Your task to perform on an android device: turn off notifications in google photos Image 0: 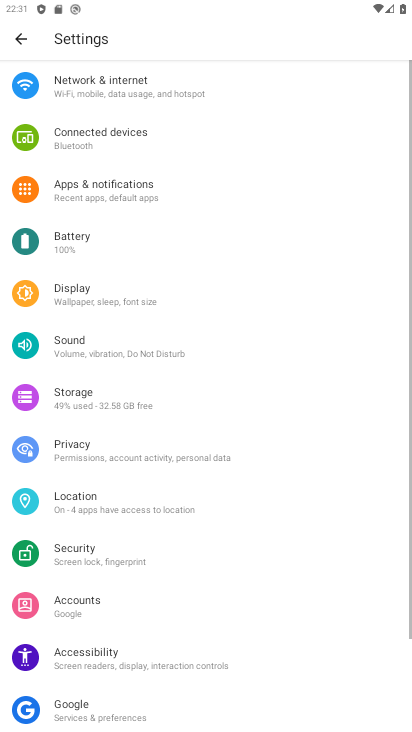
Step 0: press home button
Your task to perform on an android device: turn off notifications in google photos Image 1: 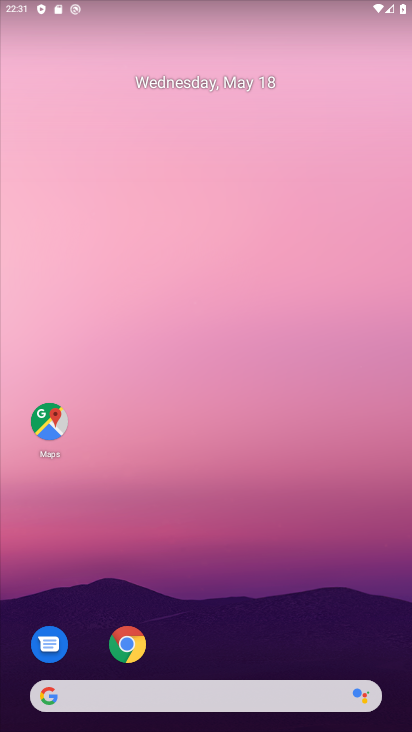
Step 1: drag from (247, 610) to (242, 206)
Your task to perform on an android device: turn off notifications in google photos Image 2: 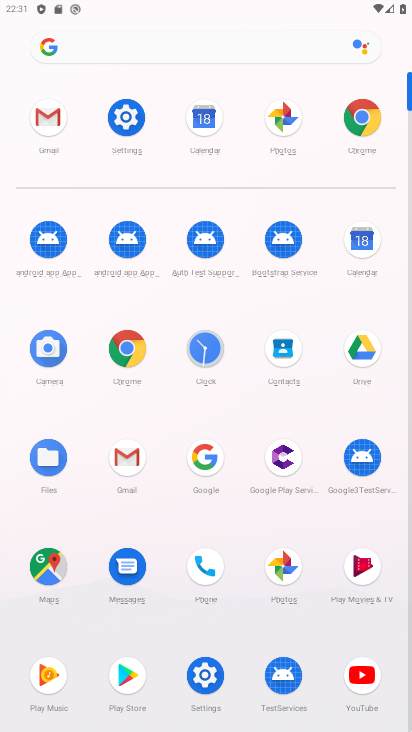
Step 2: click (288, 564)
Your task to perform on an android device: turn off notifications in google photos Image 3: 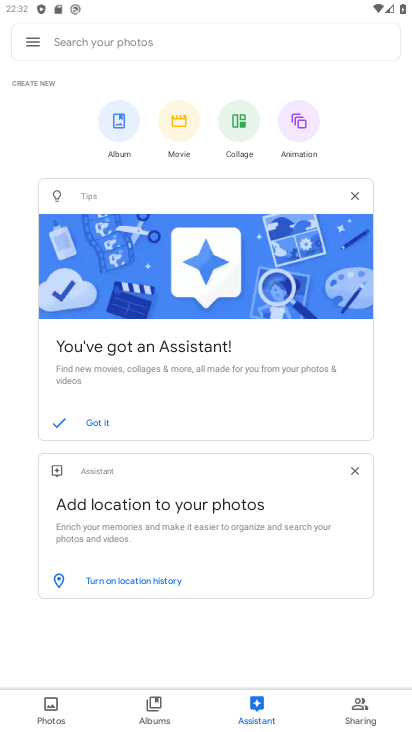
Step 3: click (30, 41)
Your task to perform on an android device: turn off notifications in google photos Image 4: 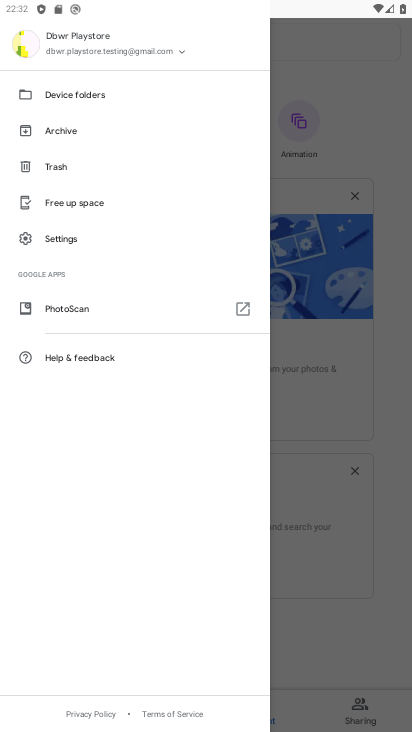
Step 4: click (93, 238)
Your task to perform on an android device: turn off notifications in google photos Image 5: 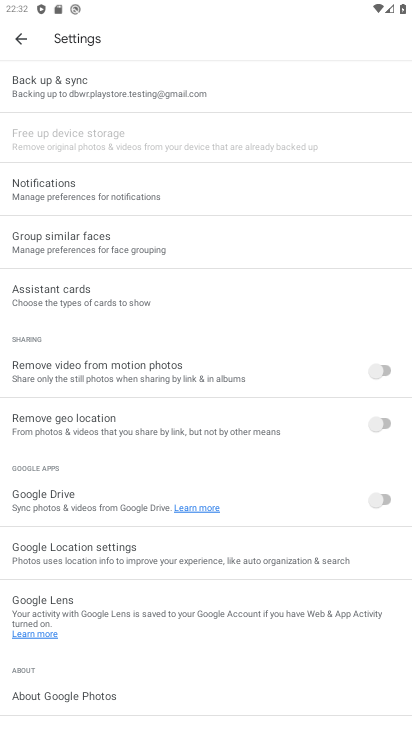
Step 5: click (69, 194)
Your task to perform on an android device: turn off notifications in google photos Image 6: 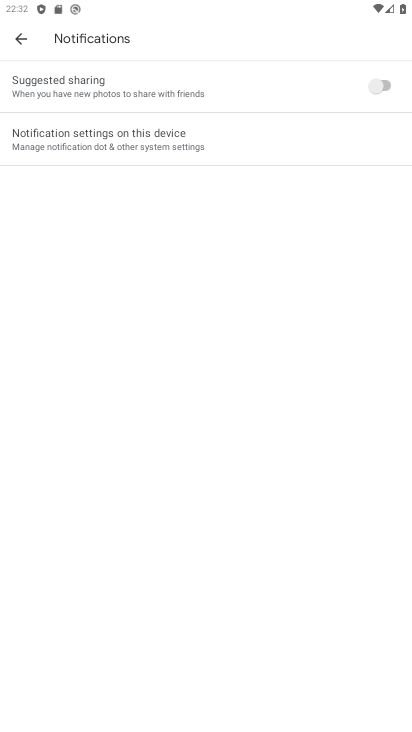
Step 6: click (96, 143)
Your task to perform on an android device: turn off notifications in google photos Image 7: 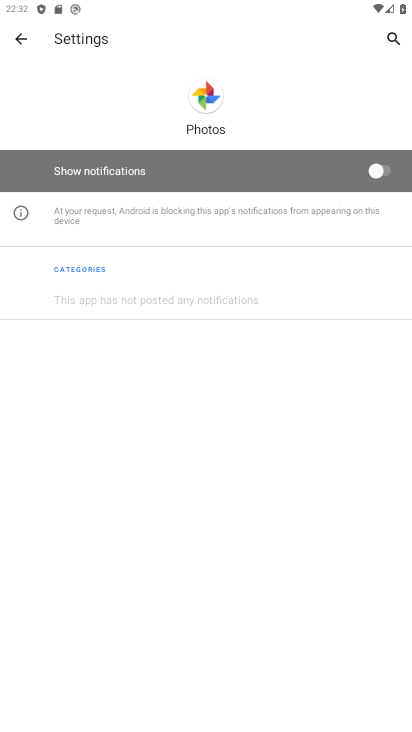
Step 7: task complete